Your task to perform on an android device: Open Amazon Image 0: 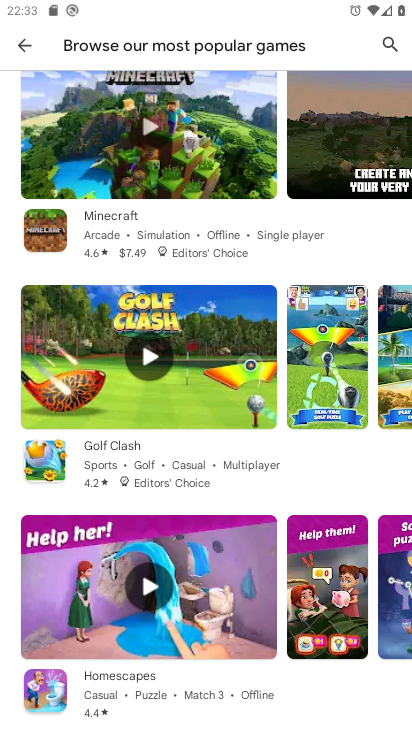
Step 0: drag from (284, 658) to (281, 269)
Your task to perform on an android device: Open Amazon Image 1: 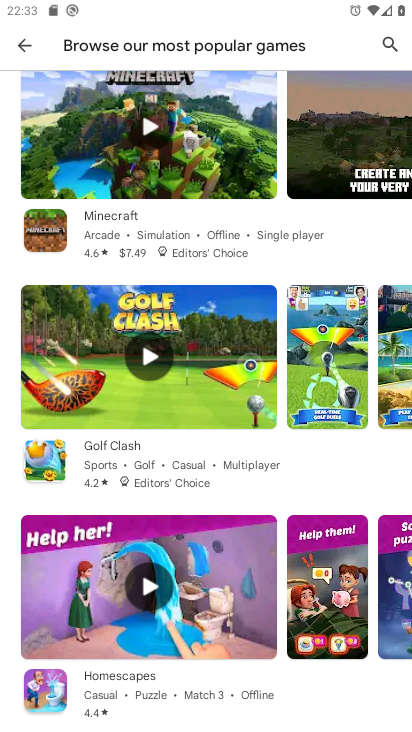
Step 1: press home button
Your task to perform on an android device: Open Amazon Image 2: 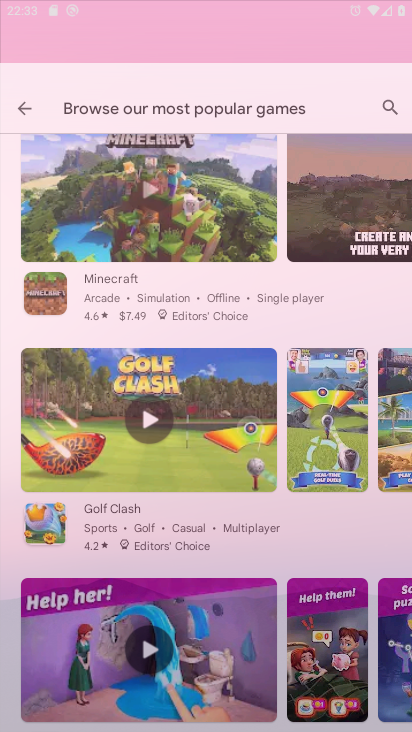
Step 2: drag from (222, 665) to (271, 231)
Your task to perform on an android device: Open Amazon Image 3: 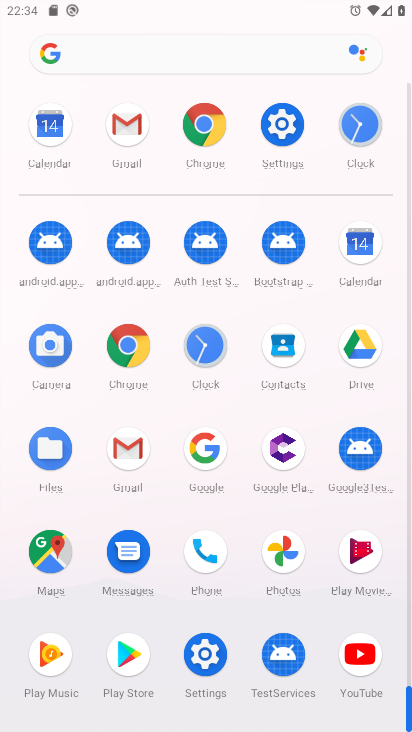
Step 3: click (127, 337)
Your task to perform on an android device: Open Amazon Image 4: 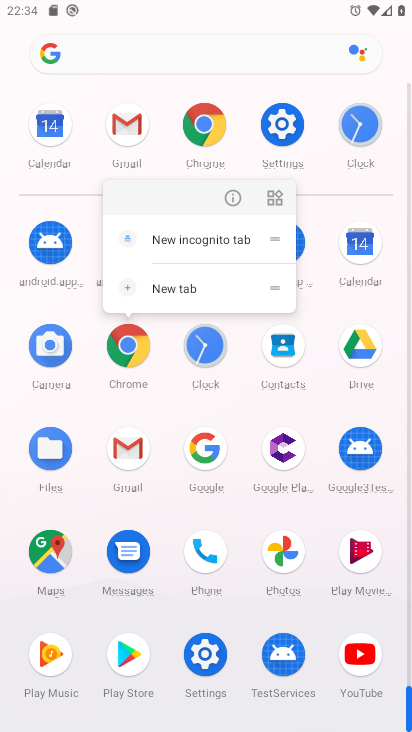
Step 4: click (235, 192)
Your task to perform on an android device: Open Amazon Image 5: 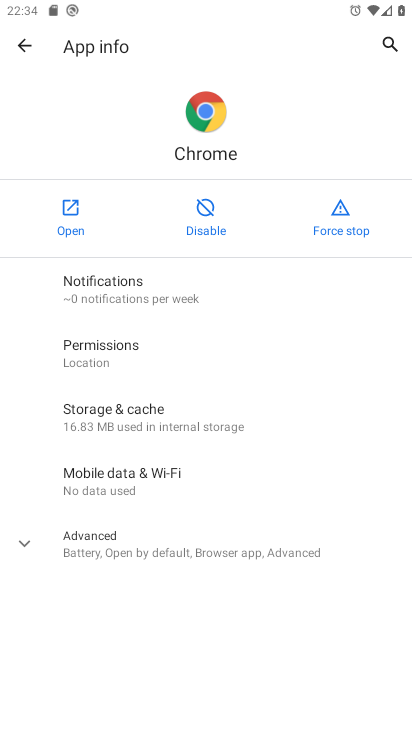
Step 5: click (77, 219)
Your task to perform on an android device: Open Amazon Image 6: 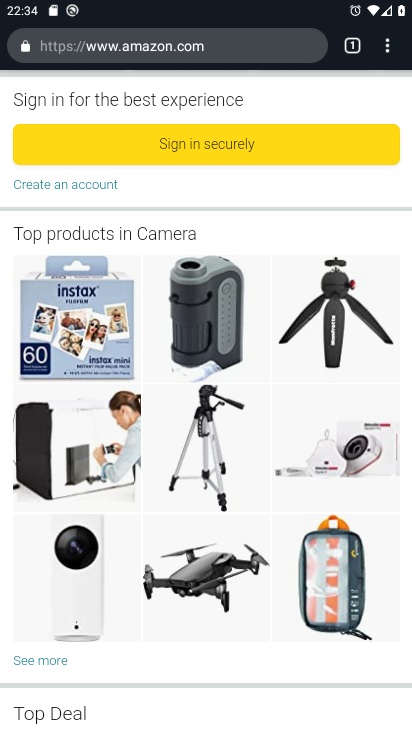
Step 6: task complete